Your task to perform on an android device: Do I have any events today? Image 0: 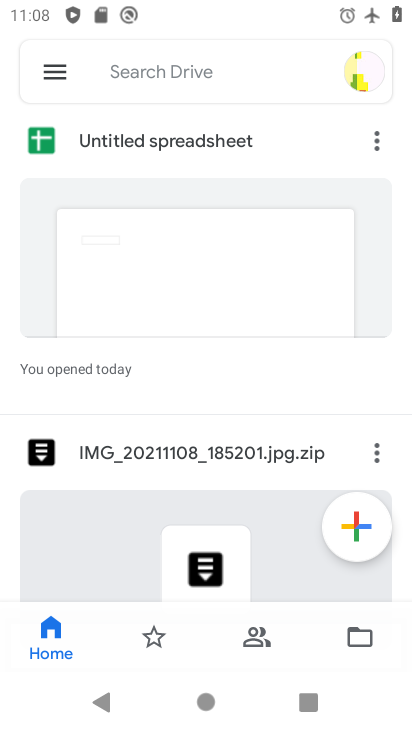
Step 0: press home button
Your task to perform on an android device: Do I have any events today? Image 1: 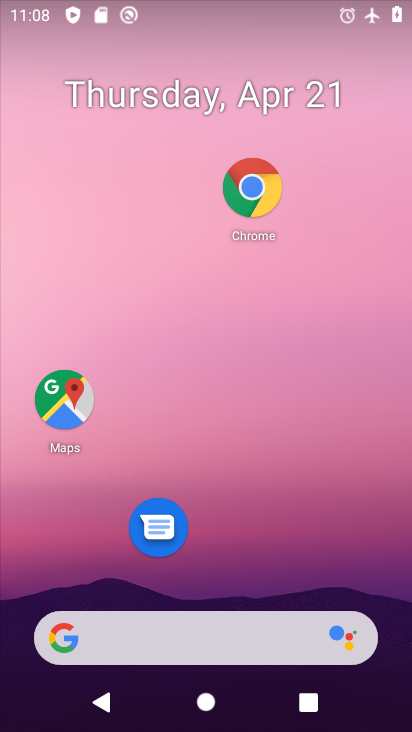
Step 1: drag from (272, 618) to (293, 110)
Your task to perform on an android device: Do I have any events today? Image 2: 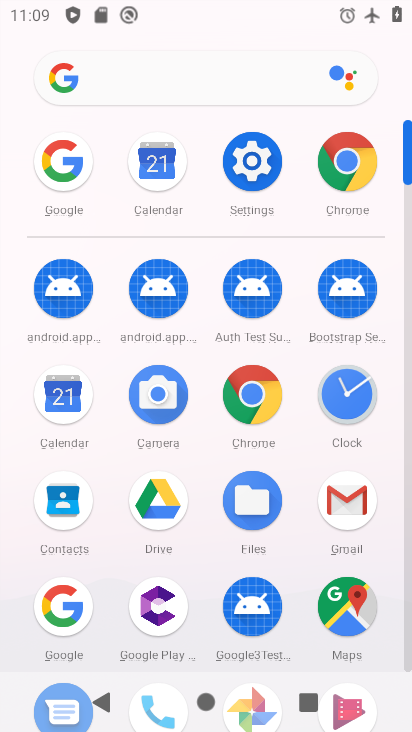
Step 2: click (62, 407)
Your task to perform on an android device: Do I have any events today? Image 3: 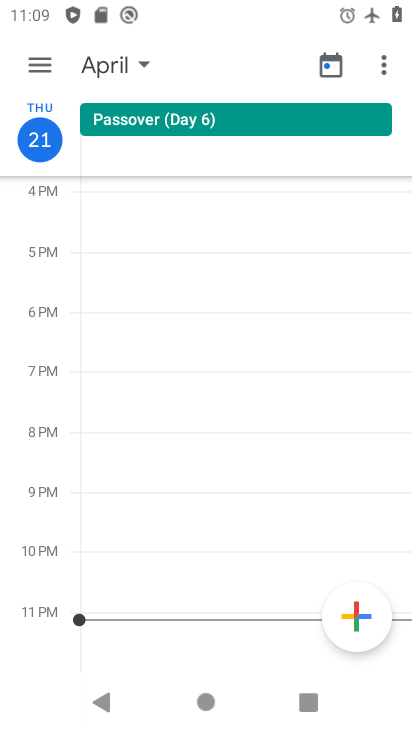
Step 3: click (140, 53)
Your task to perform on an android device: Do I have any events today? Image 4: 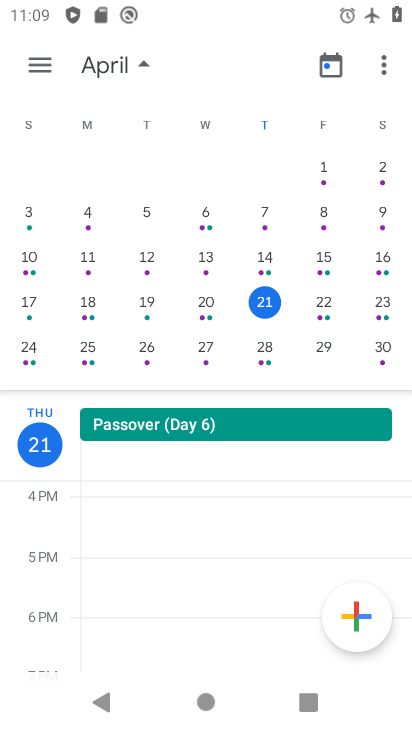
Step 4: task complete